Your task to perform on an android device: Go to battery settings Image 0: 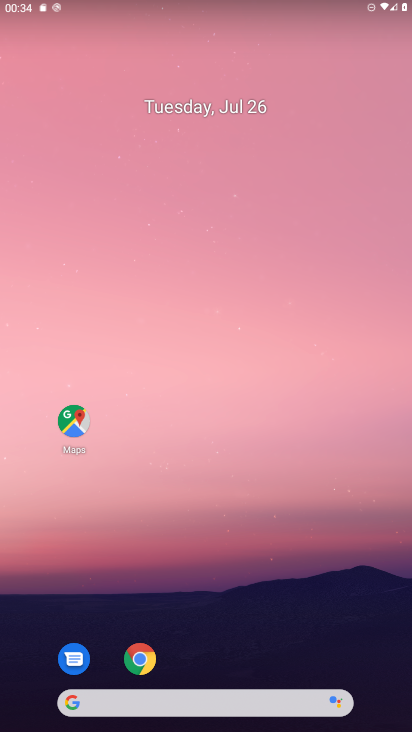
Step 0: press home button
Your task to perform on an android device: Go to battery settings Image 1: 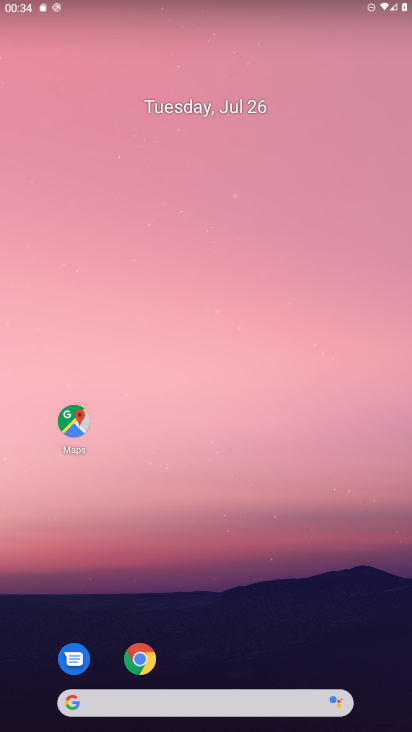
Step 1: drag from (324, 668) to (259, 68)
Your task to perform on an android device: Go to battery settings Image 2: 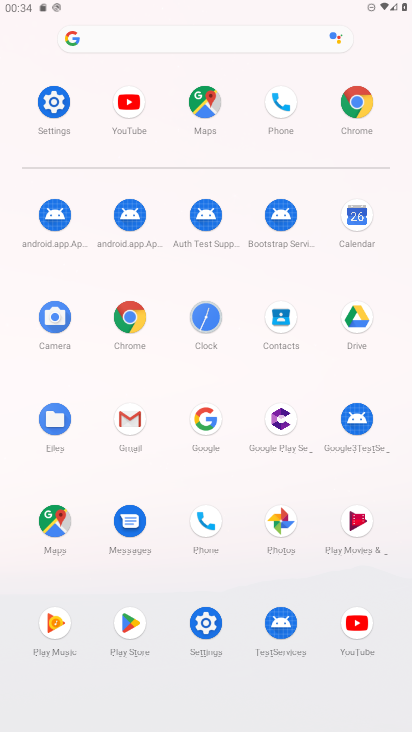
Step 2: click (67, 135)
Your task to perform on an android device: Go to battery settings Image 3: 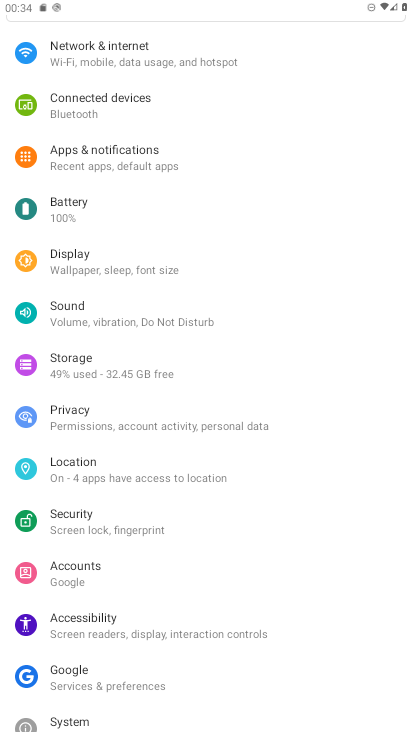
Step 3: click (80, 213)
Your task to perform on an android device: Go to battery settings Image 4: 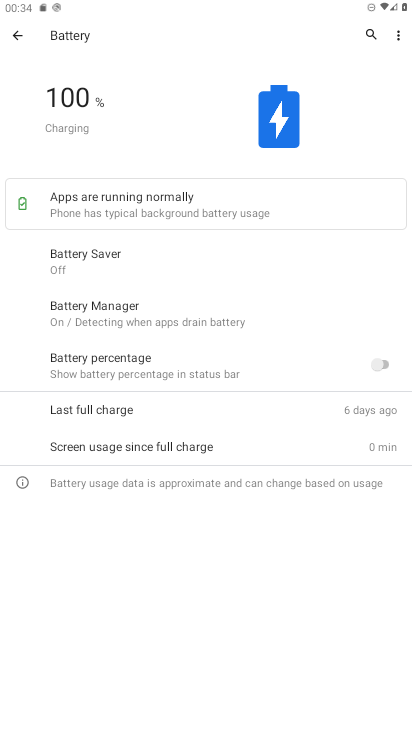
Step 4: task complete